Your task to perform on an android device: Go to wifi settings Image 0: 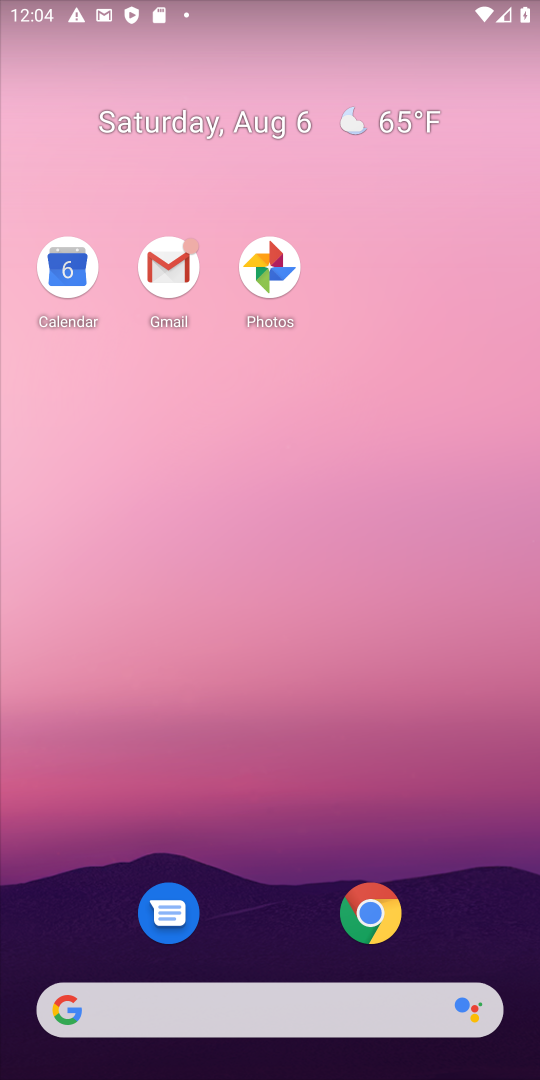
Step 0: drag from (239, 877) to (361, 190)
Your task to perform on an android device: Go to wifi settings Image 1: 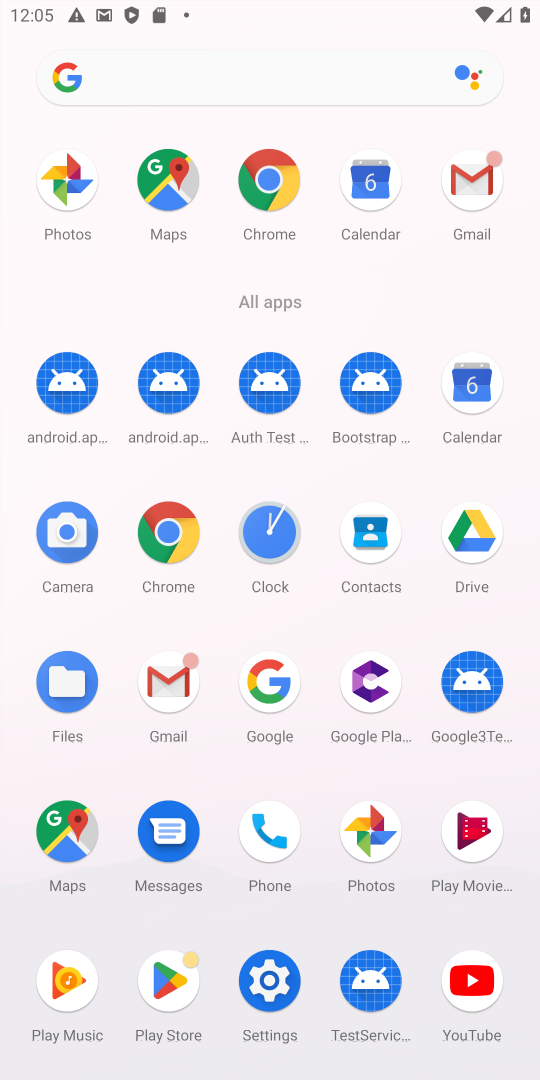
Step 1: drag from (280, 981) to (84, 446)
Your task to perform on an android device: Go to wifi settings Image 2: 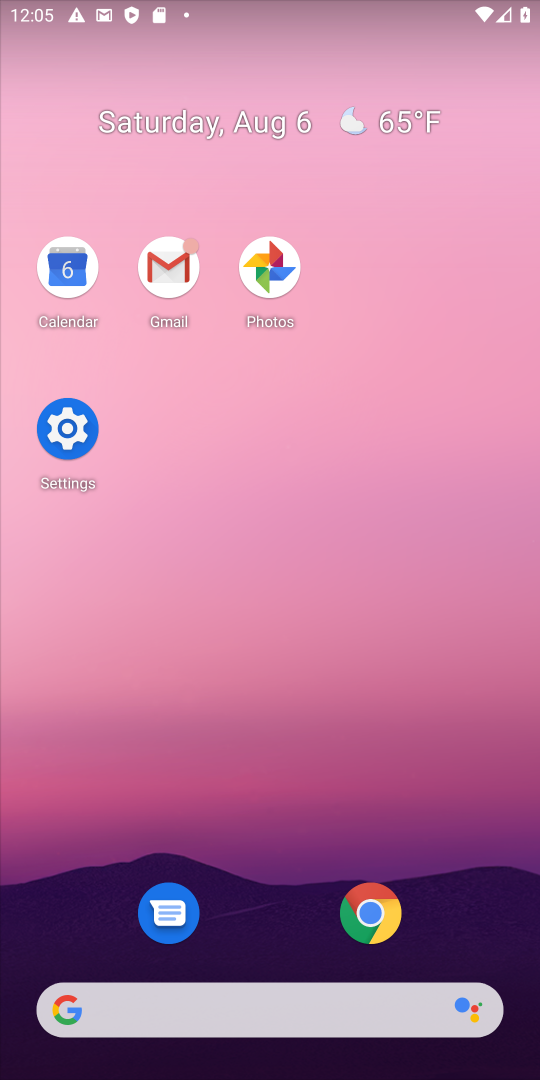
Step 2: click (71, 422)
Your task to perform on an android device: Go to wifi settings Image 3: 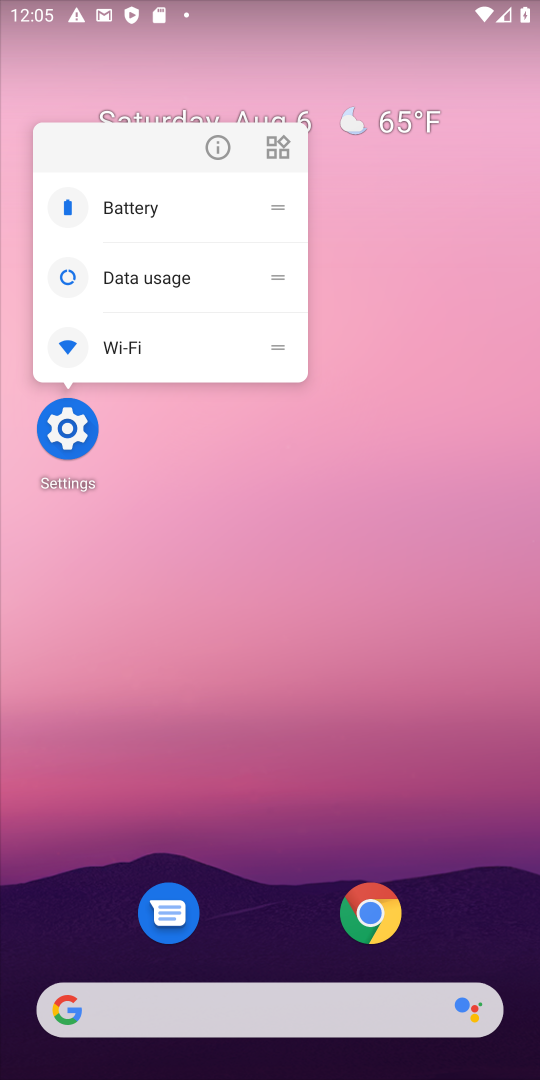
Step 3: click (71, 422)
Your task to perform on an android device: Go to wifi settings Image 4: 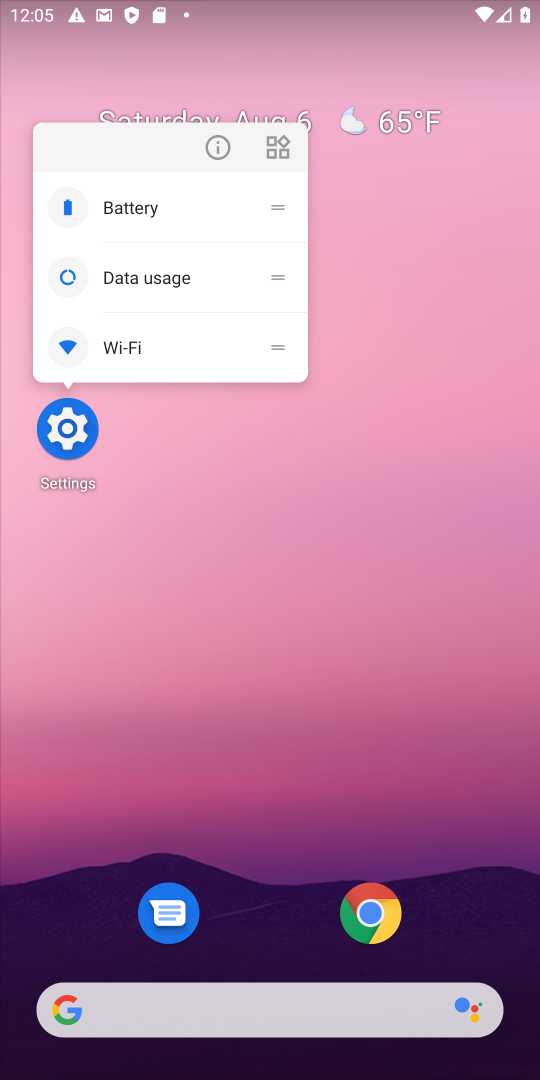
Step 4: click (71, 422)
Your task to perform on an android device: Go to wifi settings Image 5: 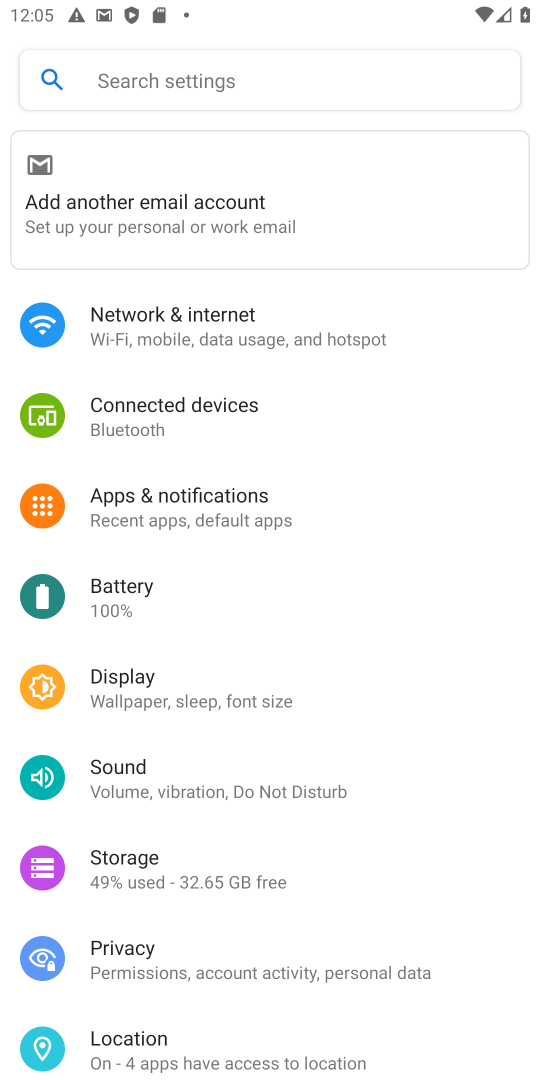
Step 5: click (199, 331)
Your task to perform on an android device: Go to wifi settings Image 6: 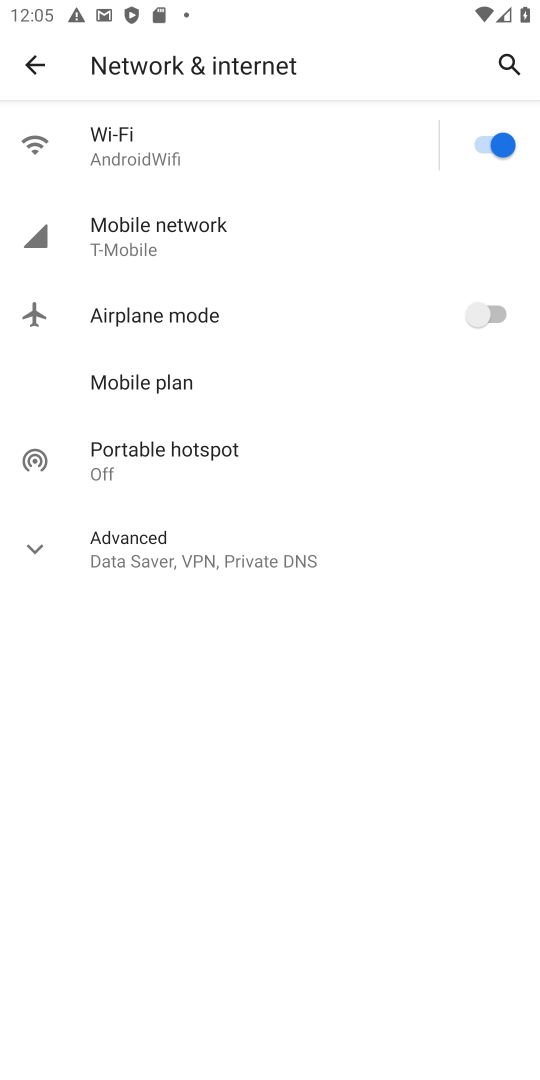
Step 6: click (247, 134)
Your task to perform on an android device: Go to wifi settings Image 7: 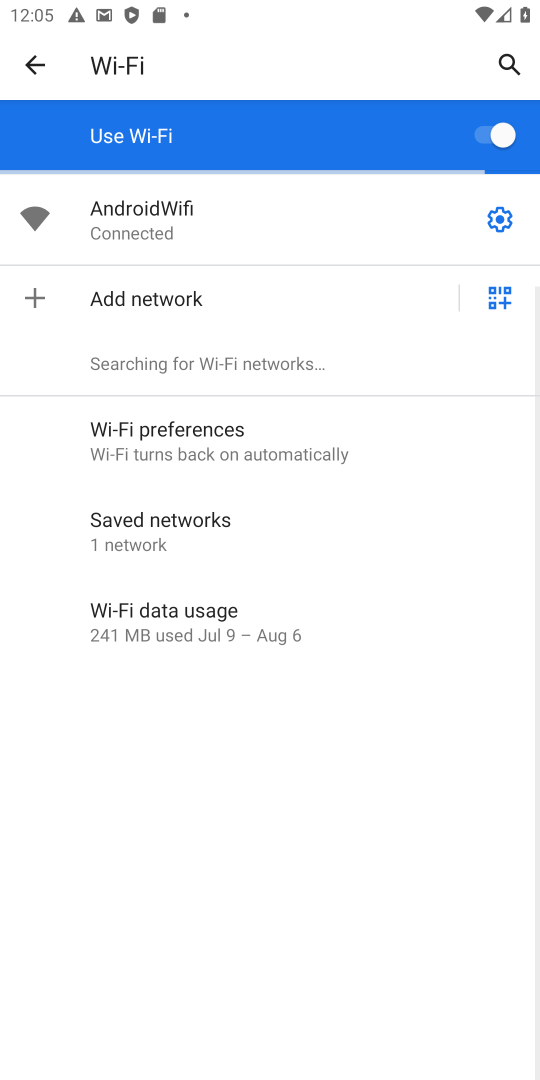
Step 7: click (491, 230)
Your task to perform on an android device: Go to wifi settings Image 8: 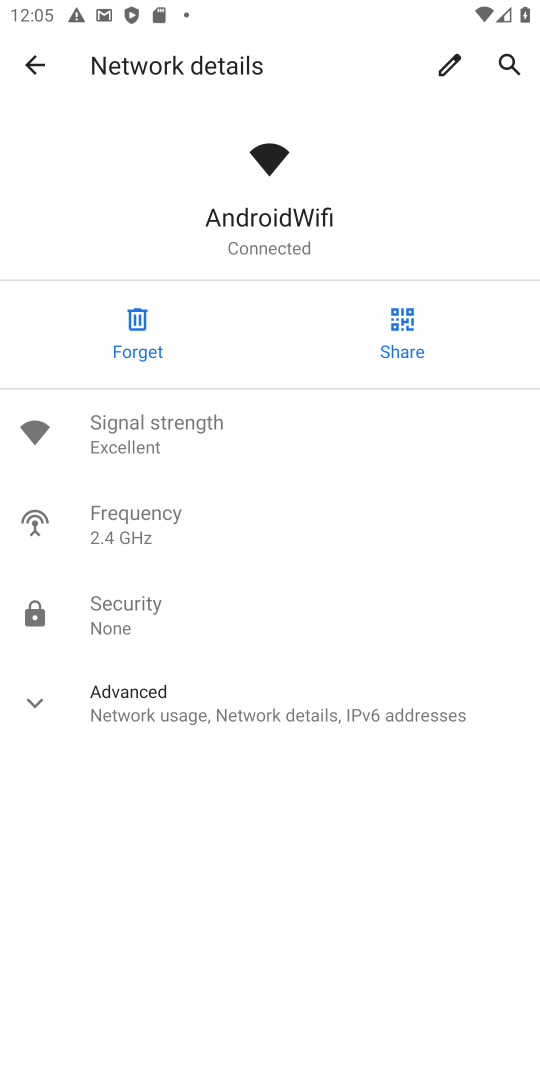
Step 8: task complete